Your task to perform on an android device: turn on priority inbox in the gmail app Image 0: 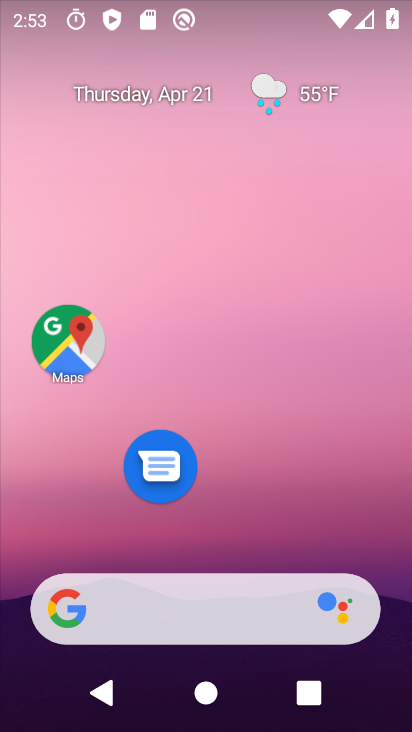
Step 0: drag from (280, 558) to (299, 28)
Your task to perform on an android device: turn on priority inbox in the gmail app Image 1: 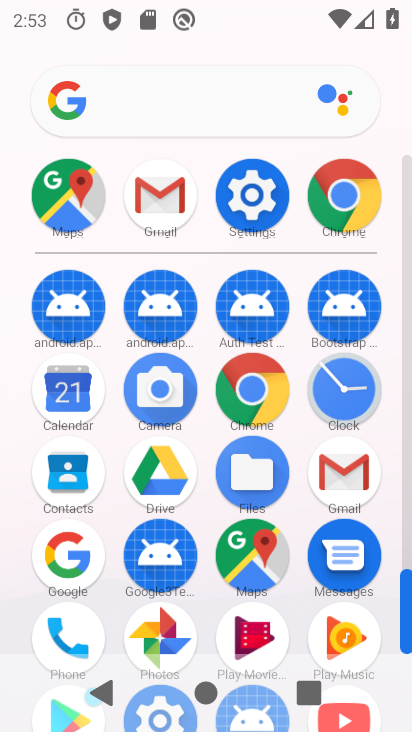
Step 1: click (362, 465)
Your task to perform on an android device: turn on priority inbox in the gmail app Image 2: 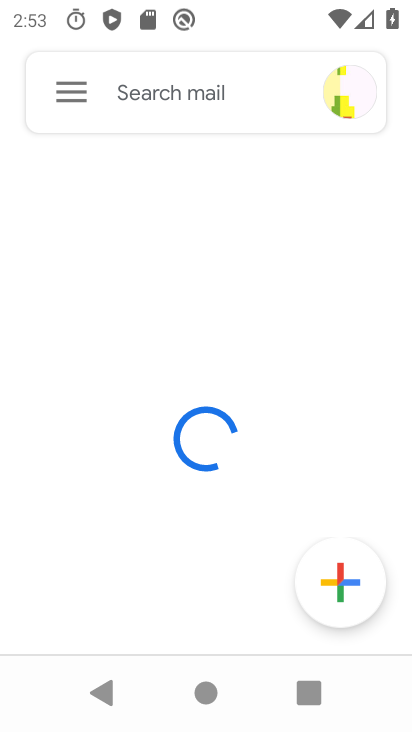
Step 2: click (65, 87)
Your task to perform on an android device: turn on priority inbox in the gmail app Image 3: 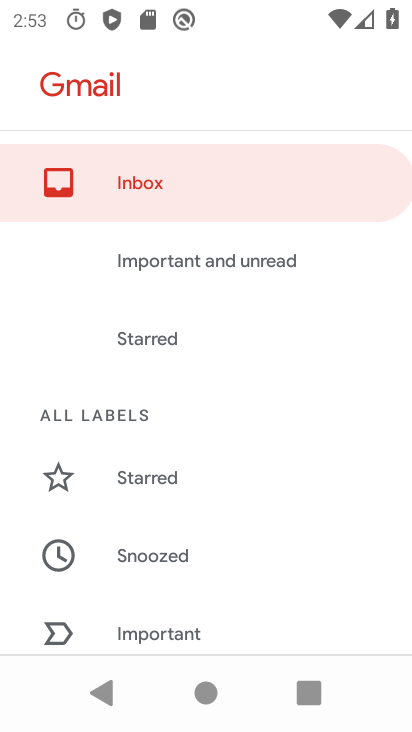
Step 3: drag from (215, 623) to (186, 202)
Your task to perform on an android device: turn on priority inbox in the gmail app Image 4: 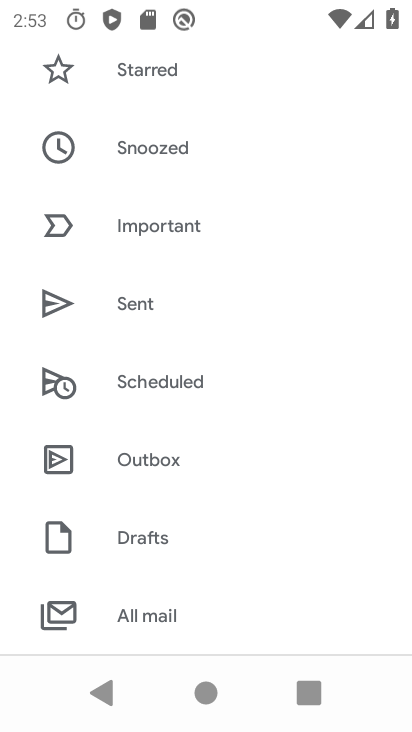
Step 4: drag from (224, 621) to (198, 273)
Your task to perform on an android device: turn on priority inbox in the gmail app Image 5: 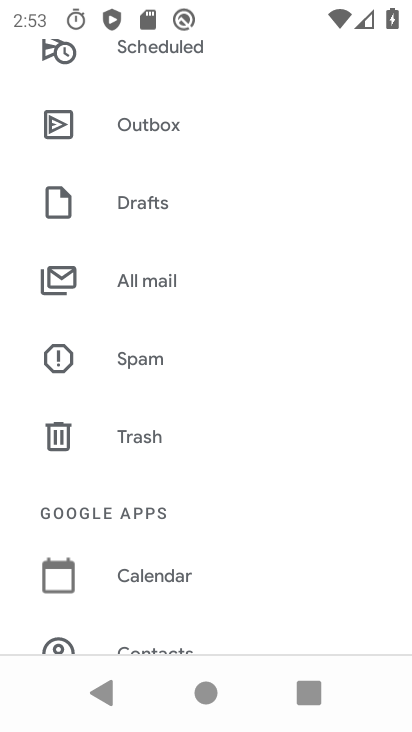
Step 5: drag from (191, 619) to (199, 272)
Your task to perform on an android device: turn on priority inbox in the gmail app Image 6: 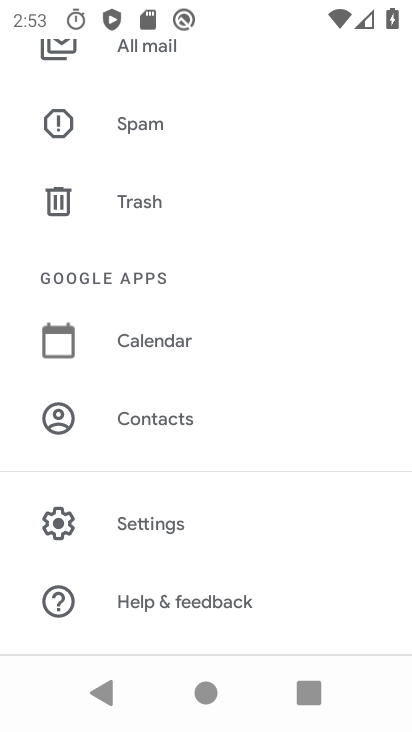
Step 6: click (144, 515)
Your task to perform on an android device: turn on priority inbox in the gmail app Image 7: 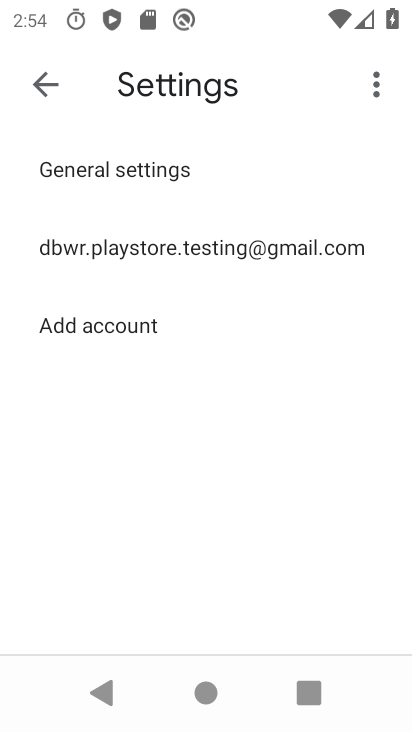
Step 7: click (157, 237)
Your task to perform on an android device: turn on priority inbox in the gmail app Image 8: 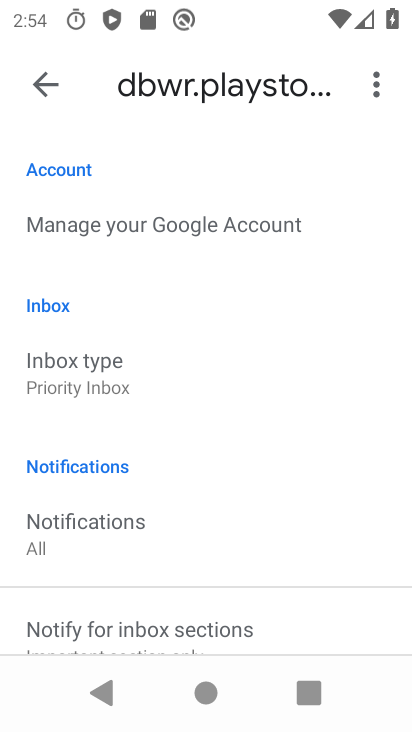
Step 8: task complete